Your task to perform on an android device: Open the Play Movies app and select the watchlist tab. Image 0: 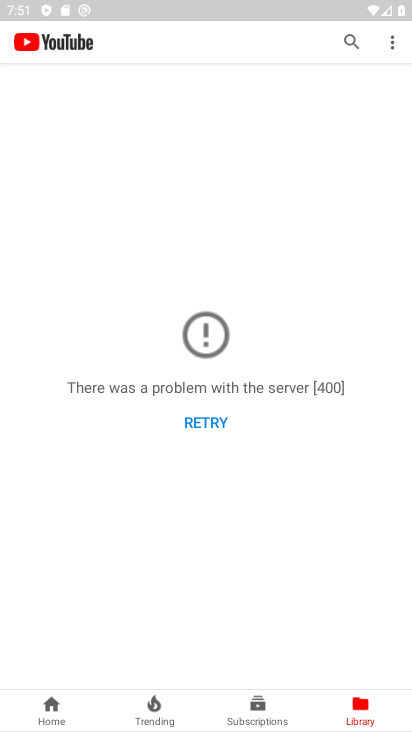
Step 0: press home button
Your task to perform on an android device: Open the Play Movies app and select the watchlist tab. Image 1: 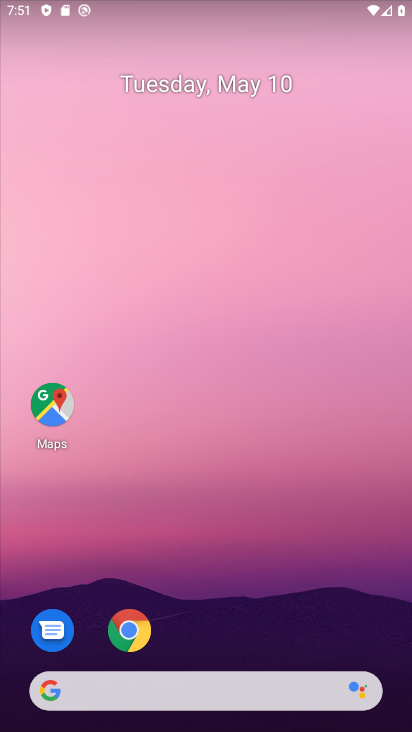
Step 1: drag from (259, 728) to (405, 63)
Your task to perform on an android device: Open the Play Movies app and select the watchlist tab. Image 2: 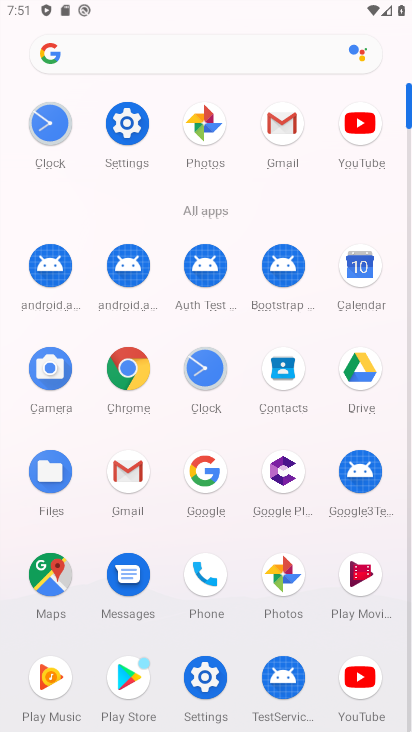
Step 2: click (364, 581)
Your task to perform on an android device: Open the Play Movies app and select the watchlist tab. Image 3: 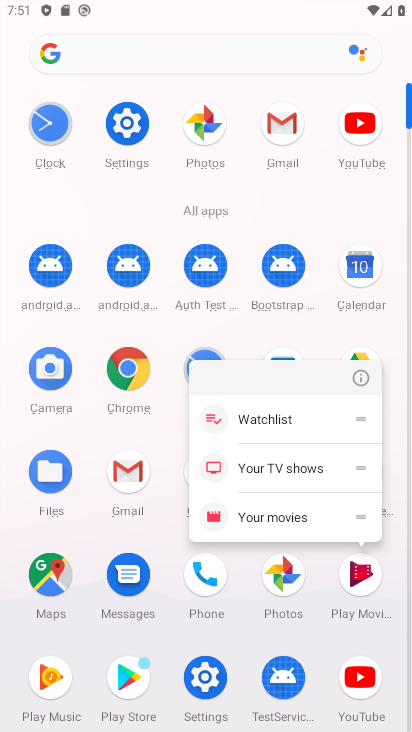
Step 3: click (361, 581)
Your task to perform on an android device: Open the Play Movies app and select the watchlist tab. Image 4: 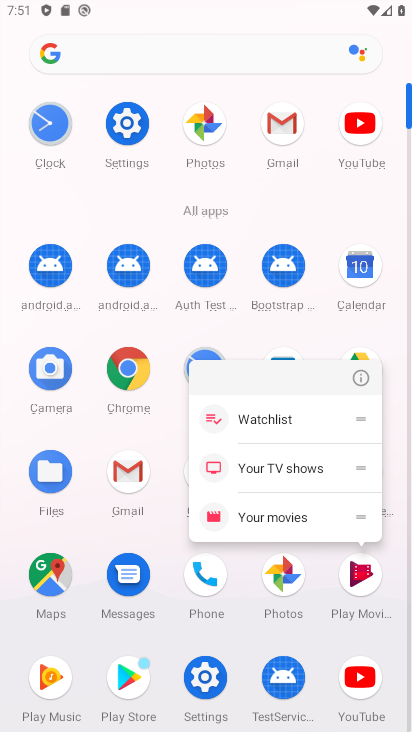
Step 4: click (361, 581)
Your task to perform on an android device: Open the Play Movies app and select the watchlist tab. Image 5: 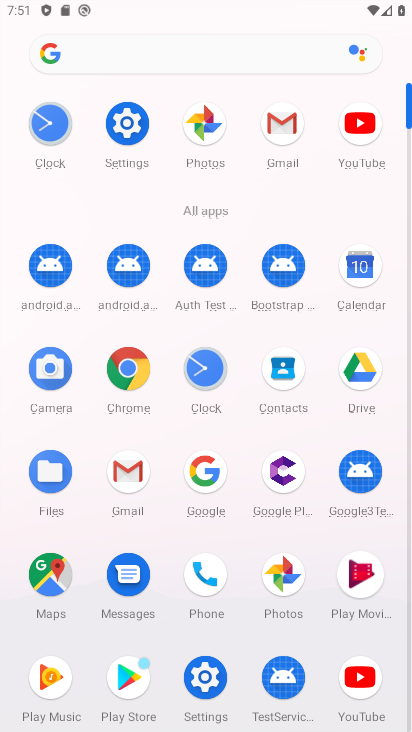
Step 5: click (361, 581)
Your task to perform on an android device: Open the Play Movies app and select the watchlist tab. Image 6: 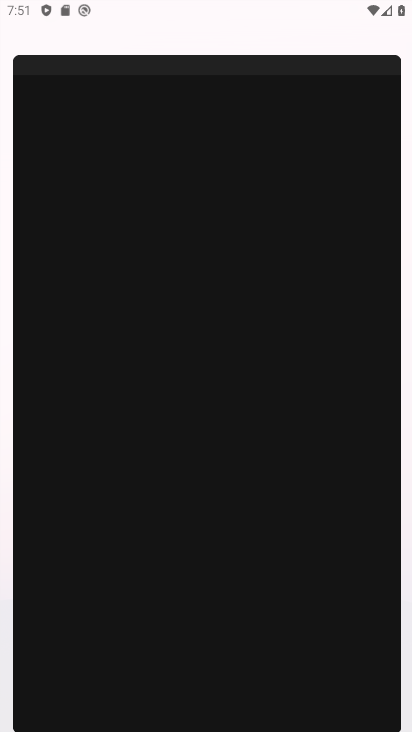
Step 6: click (361, 581)
Your task to perform on an android device: Open the Play Movies app and select the watchlist tab. Image 7: 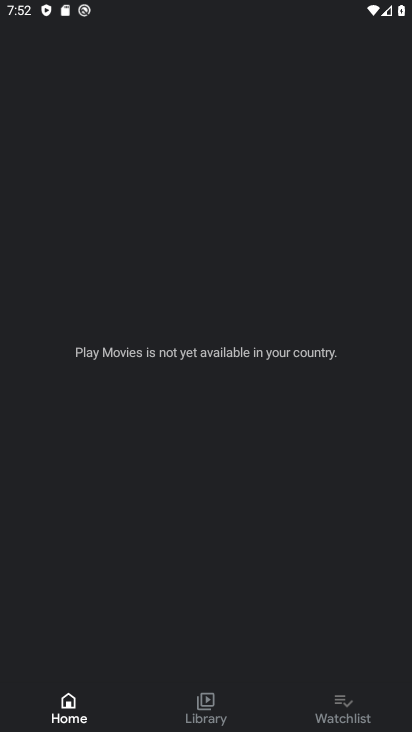
Step 7: click (347, 701)
Your task to perform on an android device: Open the Play Movies app and select the watchlist tab. Image 8: 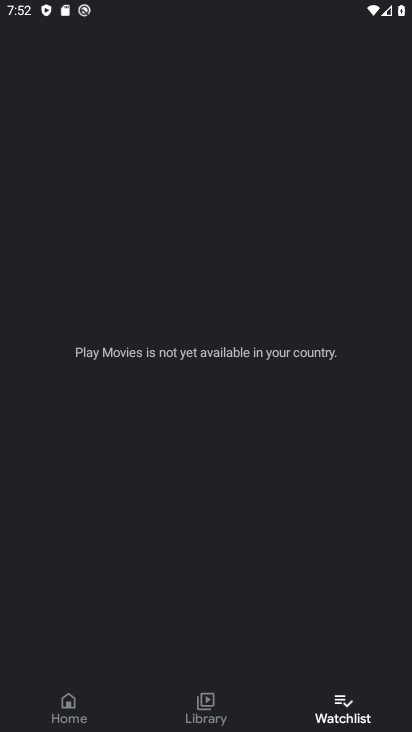
Step 8: task complete